Your task to perform on an android device: Check the news Image 0: 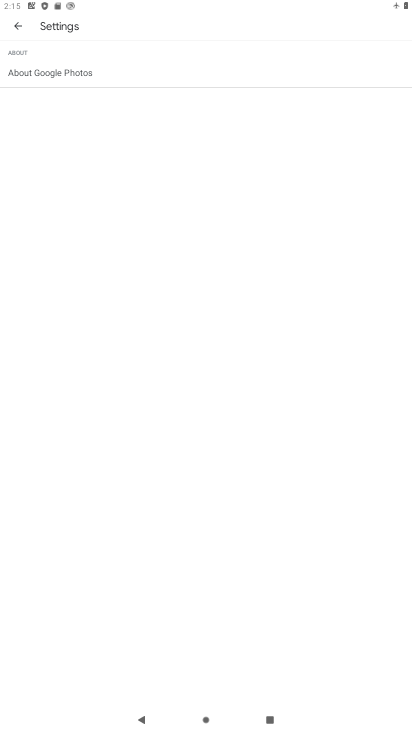
Step 0: press home button
Your task to perform on an android device: Check the news Image 1: 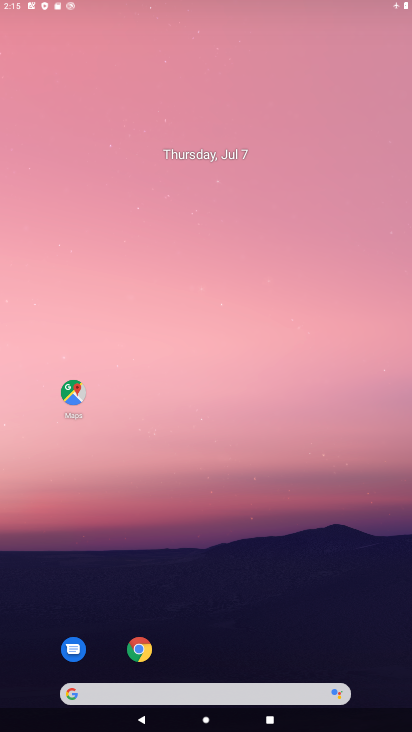
Step 1: drag from (233, 666) to (257, 2)
Your task to perform on an android device: Check the news Image 2: 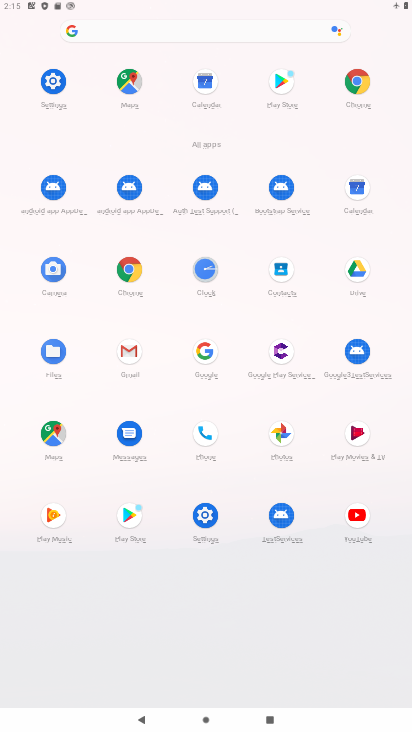
Step 2: click (133, 265)
Your task to perform on an android device: Check the news Image 3: 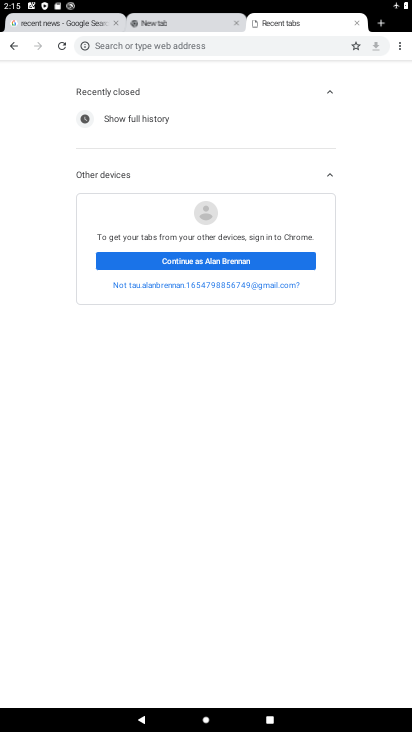
Step 3: click (157, 44)
Your task to perform on an android device: Check the news Image 4: 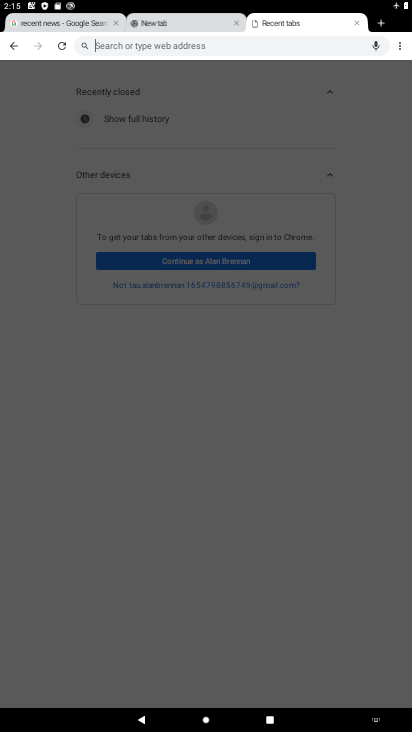
Step 4: type "news"
Your task to perform on an android device: Check the news Image 5: 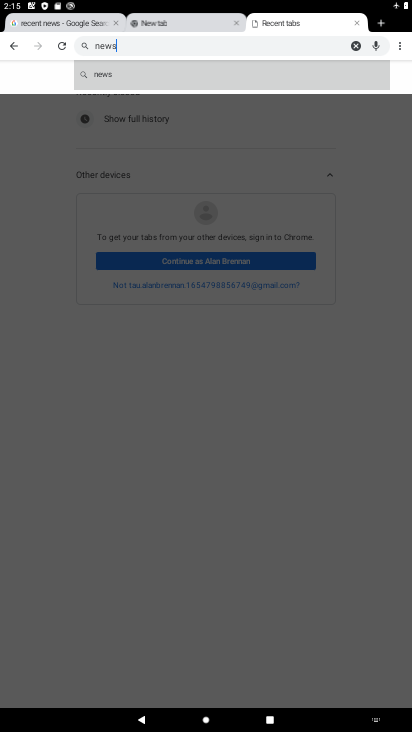
Step 5: click (87, 72)
Your task to perform on an android device: Check the news Image 6: 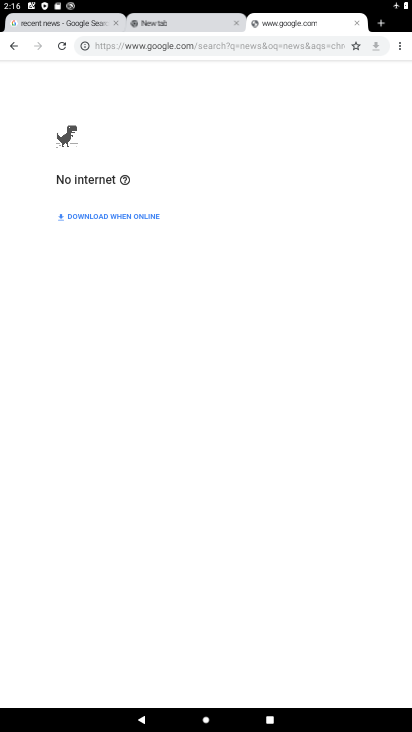
Step 6: task complete